Your task to perform on an android device: open app "Microsoft Excel" (install if not already installed) Image 0: 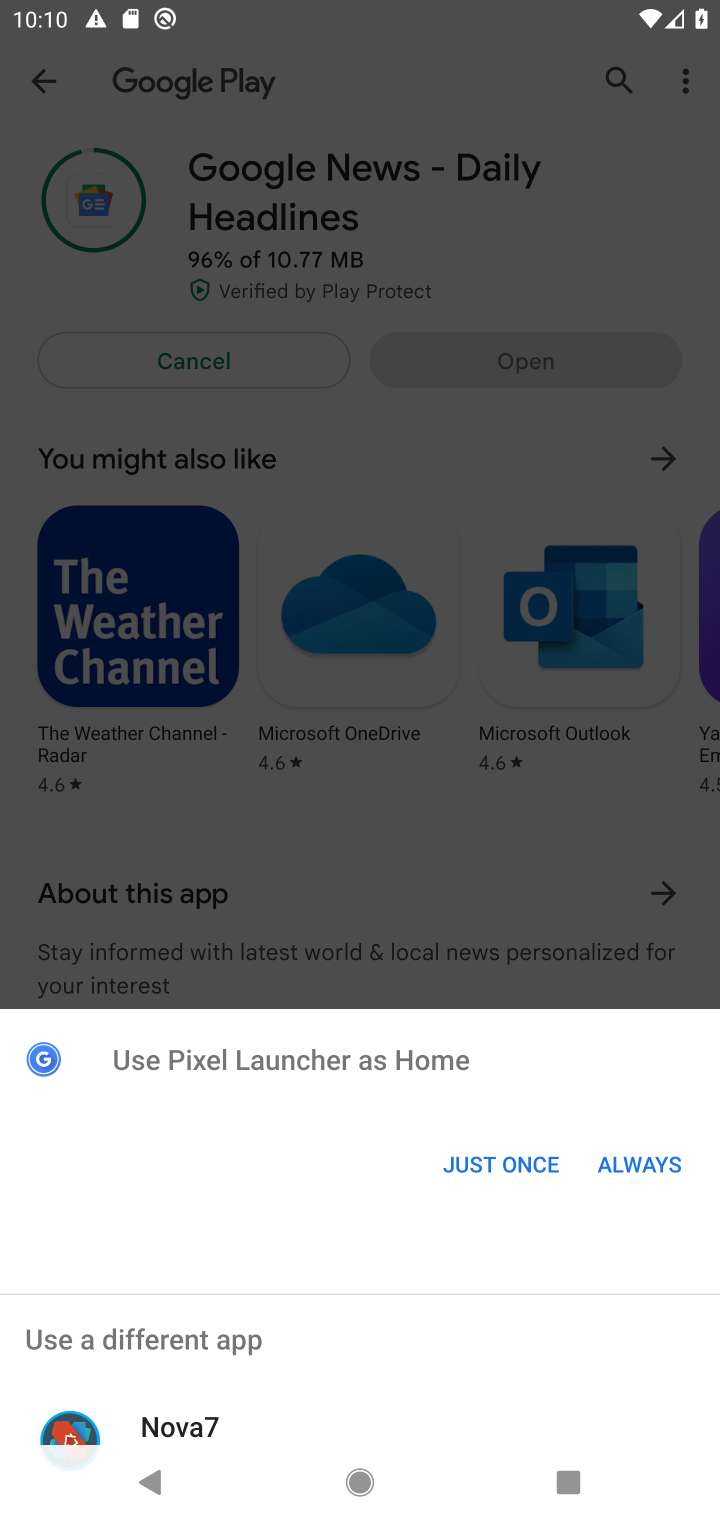
Step 0: click (504, 1151)
Your task to perform on an android device: open app "Microsoft Excel" (install if not already installed) Image 1: 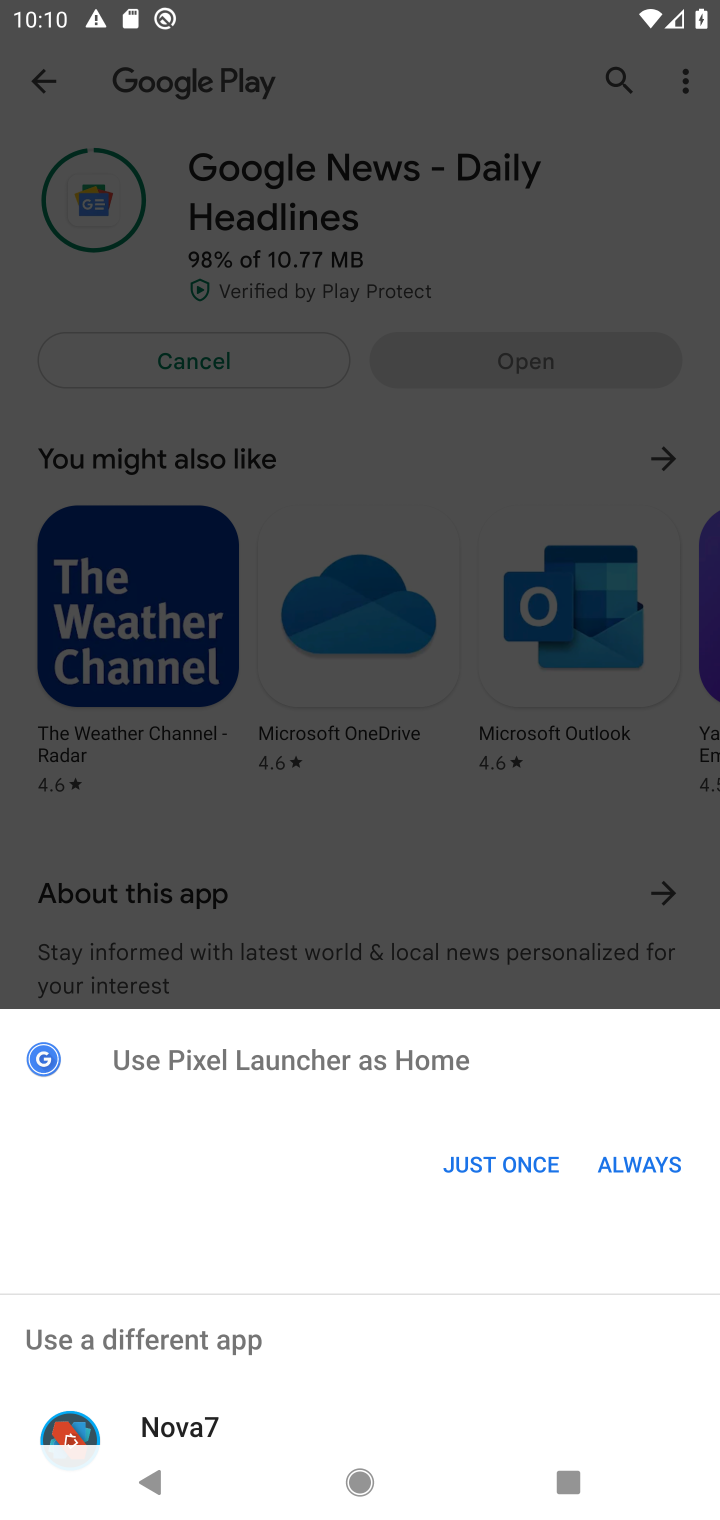
Step 1: task complete